Your task to perform on an android device: turn on sleep mode Image 0: 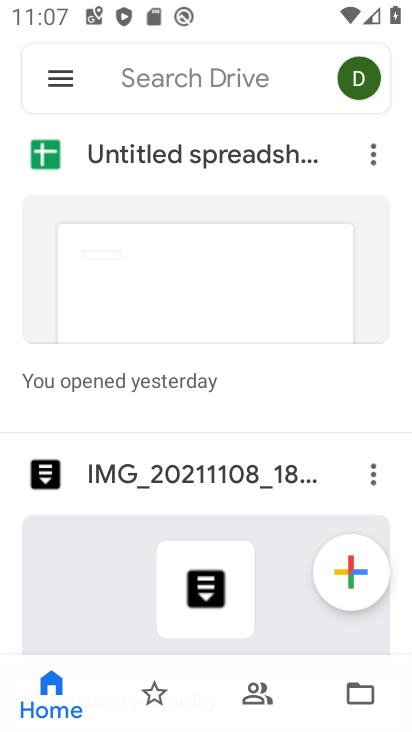
Step 0: press home button
Your task to perform on an android device: turn on sleep mode Image 1: 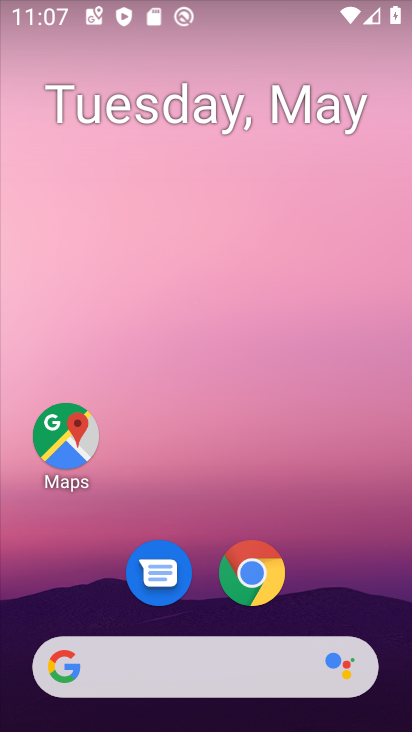
Step 1: drag from (320, 577) to (339, 246)
Your task to perform on an android device: turn on sleep mode Image 2: 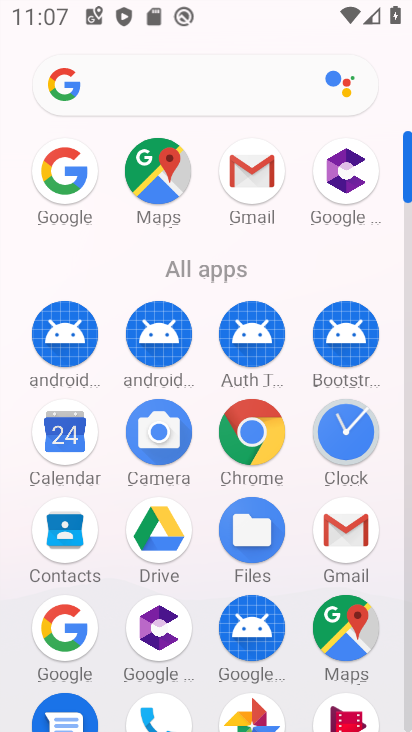
Step 2: drag from (268, 562) to (320, 213)
Your task to perform on an android device: turn on sleep mode Image 3: 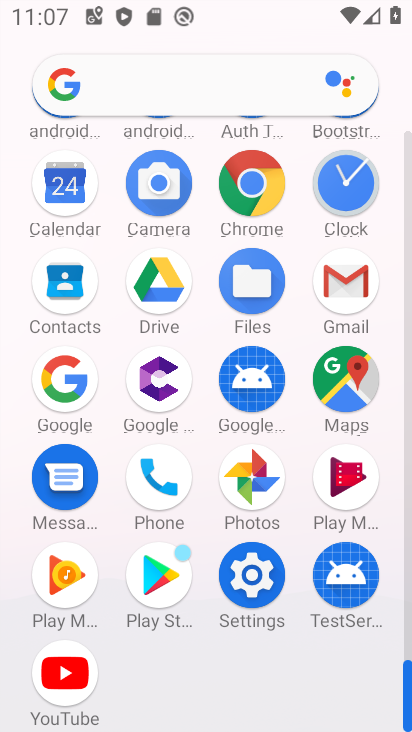
Step 3: drag from (214, 521) to (237, 231)
Your task to perform on an android device: turn on sleep mode Image 4: 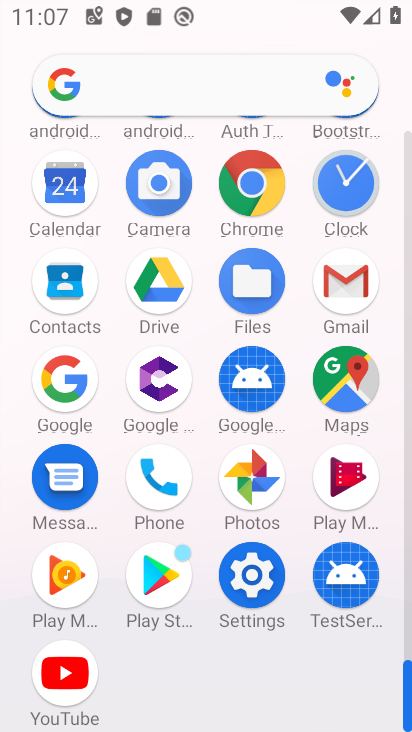
Step 4: click (240, 572)
Your task to perform on an android device: turn on sleep mode Image 5: 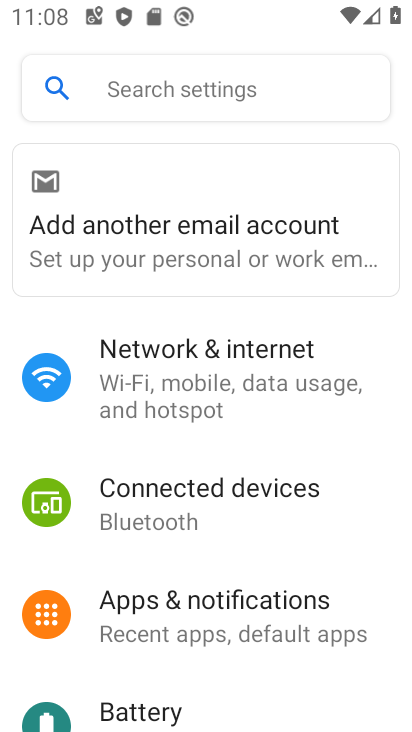
Step 5: task complete